Your task to perform on an android device: Open calendar and show me the first week of next month Image 0: 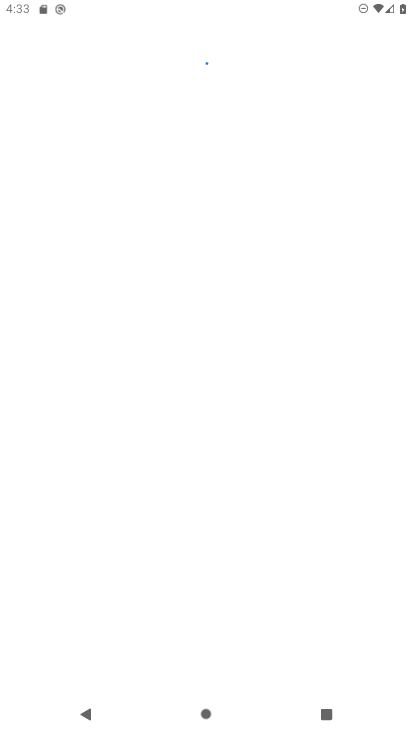
Step 0: drag from (355, 524) to (259, 10)
Your task to perform on an android device: Open calendar and show me the first week of next month Image 1: 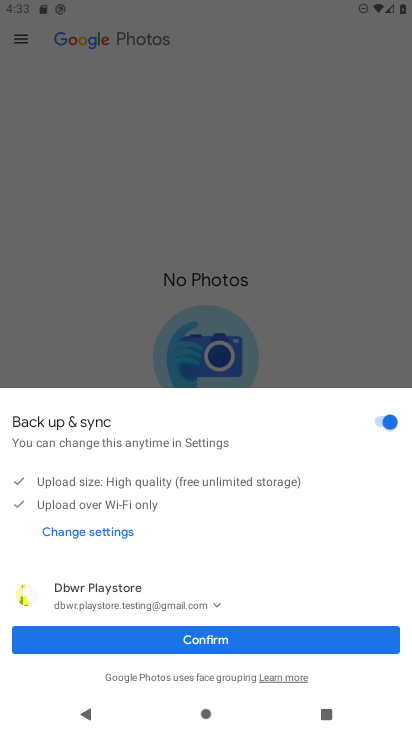
Step 1: press home button
Your task to perform on an android device: Open calendar and show me the first week of next month Image 2: 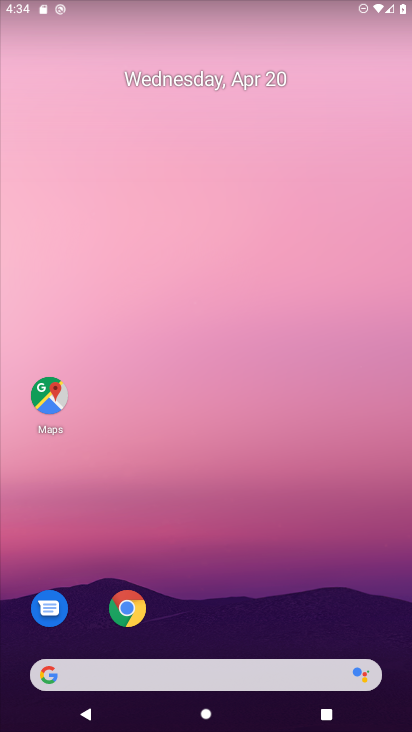
Step 2: drag from (322, 297) to (274, 185)
Your task to perform on an android device: Open calendar and show me the first week of next month Image 3: 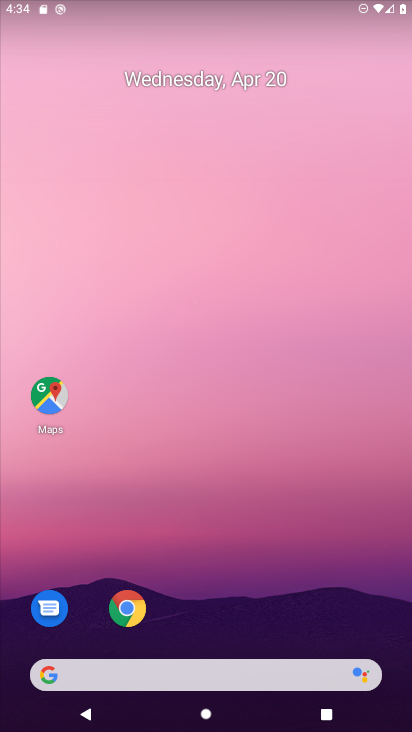
Step 3: drag from (272, 624) to (273, 172)
Your task to perform on an android device: Open calendar and show me the first week of next month Image 4: 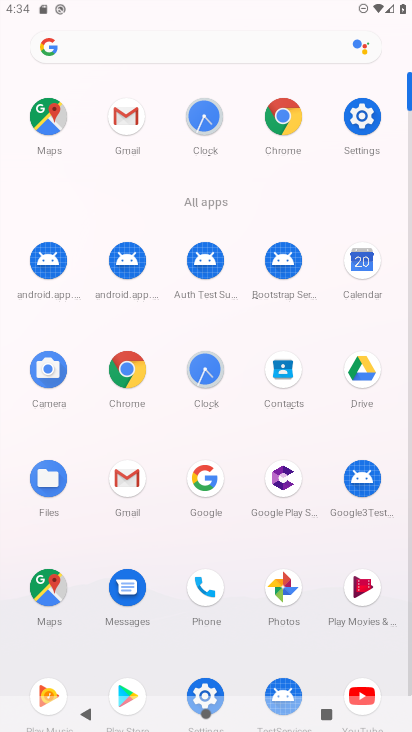
Step 4: click (362, 281)
Your task to perform on an android device: Open calendar and show me the first week of next month Image 5: 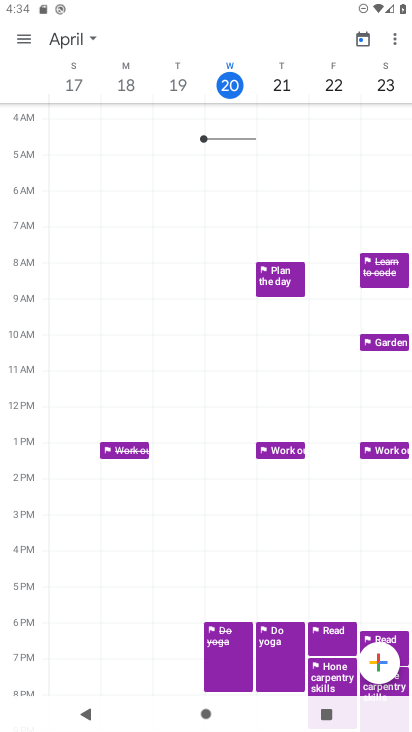
Step 5: click (73, 37)
Your task to perform on an android device: Open calendar and show me the first week of next month Image 6: 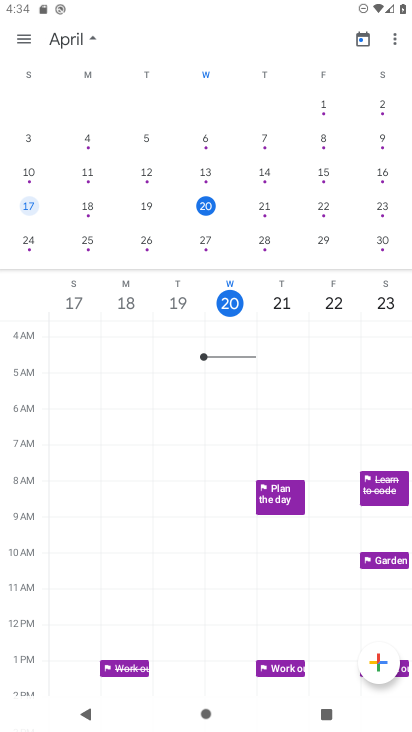
Step 6: drag from (396, 190) to (19, 169)
Your task to perform on an android device: Open calendar and show me the first week of next month Image 7: 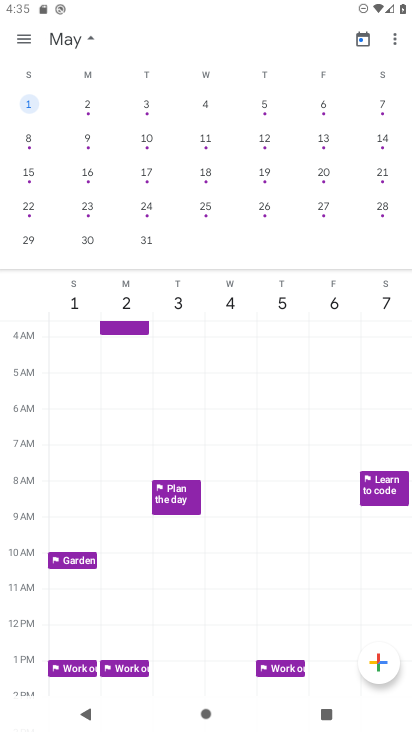
Step 7: click (137, 104)
Your task to perform on an android device: Open calendar and show me the first week of next month Image 8: 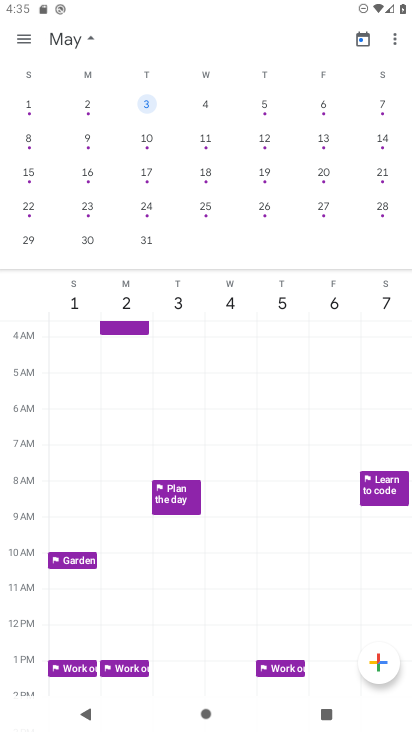
Step 8: click (98, 41)
Your task to perform on an android device: Open calendar and show me the first week of next month Image 9: 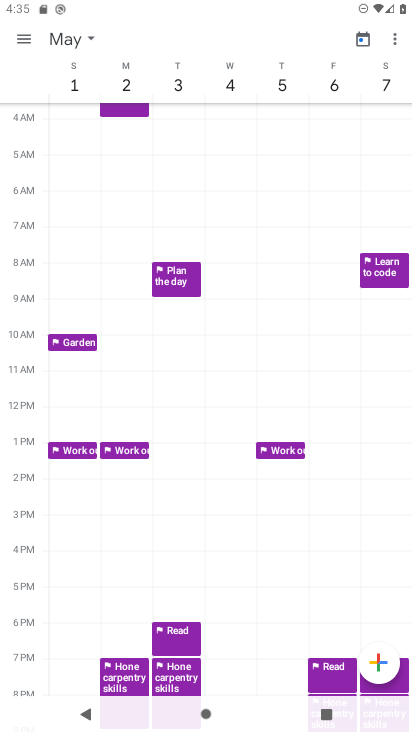
Step 9: task complete